Your task to perform on an android device: Empty the shopping cart on ebay.com. Add "macbook pro 13 inch" to the cart on ebay.com Image 0: 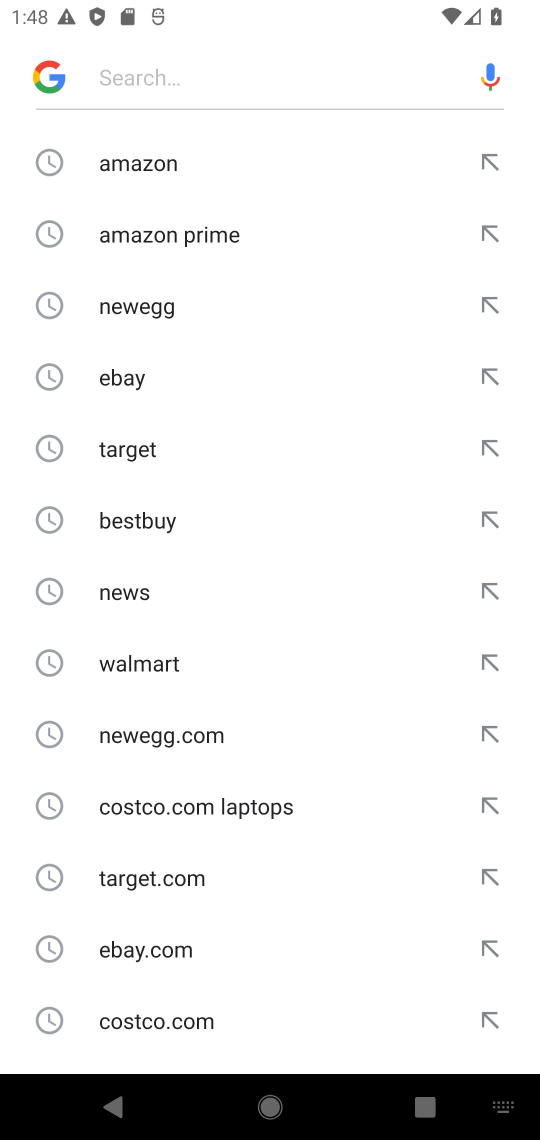
Step 0: press home button
Your task to perform on an android device: Empty the shopping cart on ebay.com. Add "macbook pro 13 inch" to the cart on ebay.com Image 1: 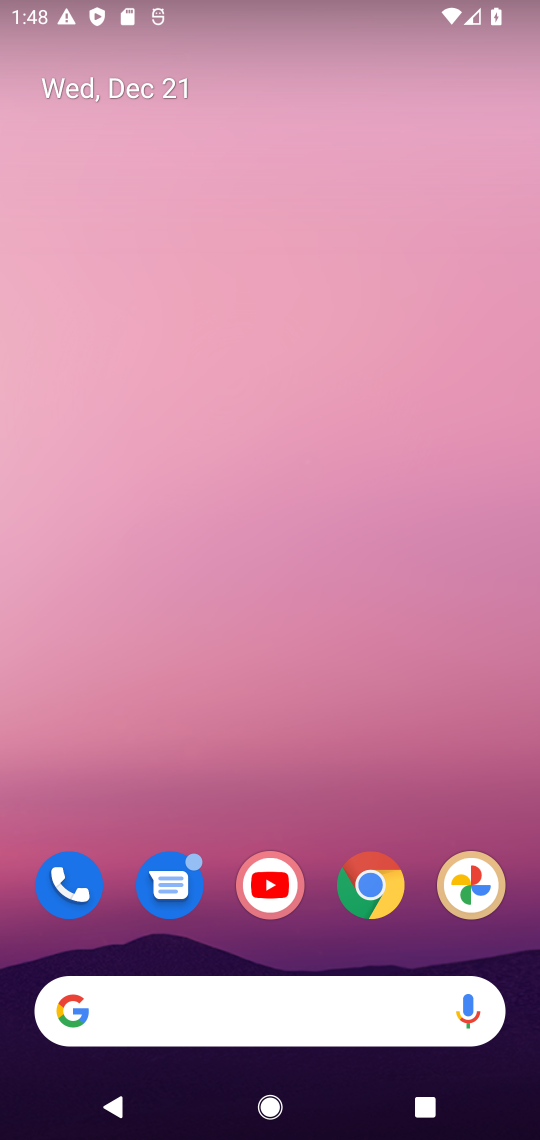
Step 1: drag from (244, 985) to (281, 357)
Your task to perform on an android device: Empty the shopping cart on ebay.com. Add "macbook pro 13 inch" to the cart on ebay.com Image 2: 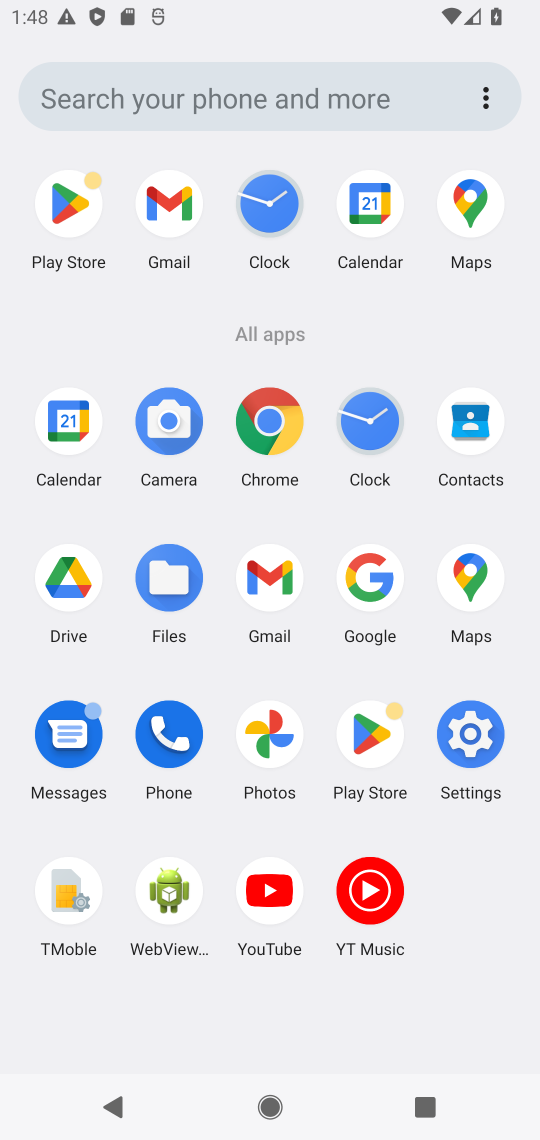
Step 2: click (371, 582)
Your task to perform on an android device: Empty the shopping cart on ebay.com. Add "macbook pro 13 inch" to the cart on ebay.com Image 3: 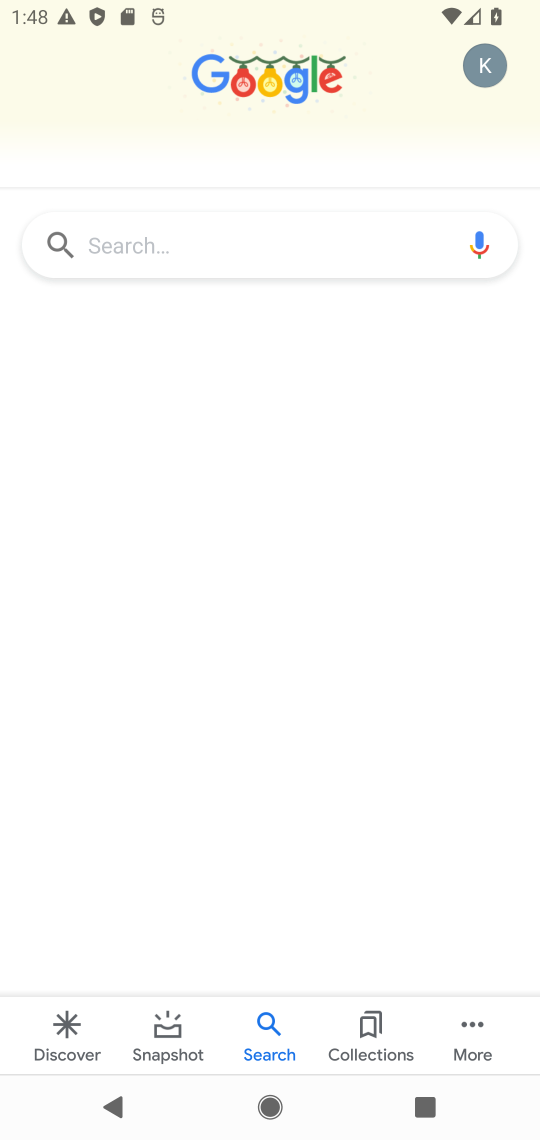
Step 3: click (139, 249)
Your task to perform on an android device: Empty the shopping cart on ebay.com. Add "macbook pro 13 inch" to the cart on ebay.com Image 4: 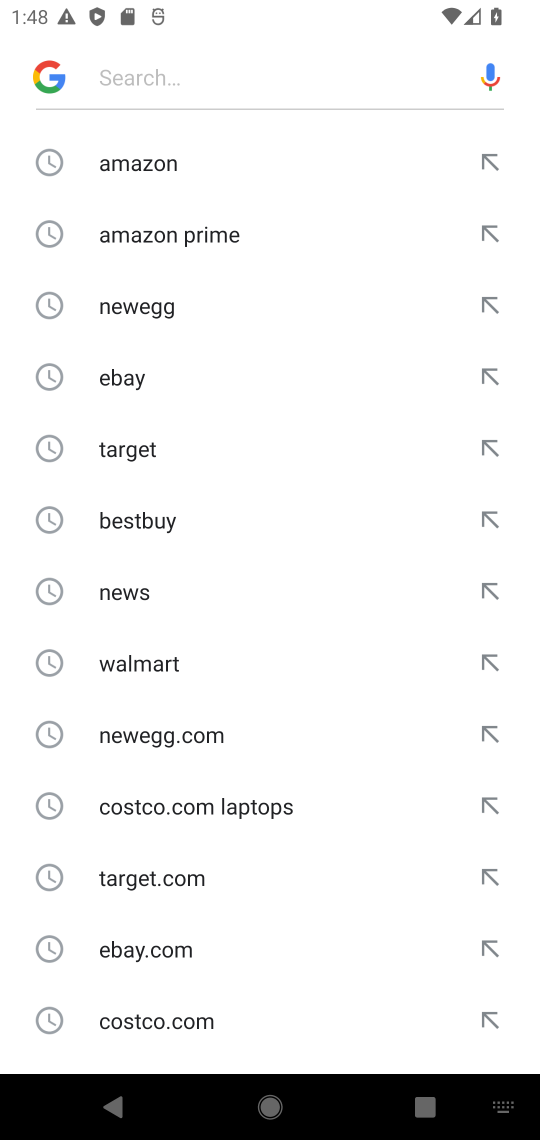
Step 4: click (119, 374)
Your task to perform on an android device: Empty the shopping cart on ebay.com. Add "macbook pro 13 inch" to the cart on ebay.com Image 5: 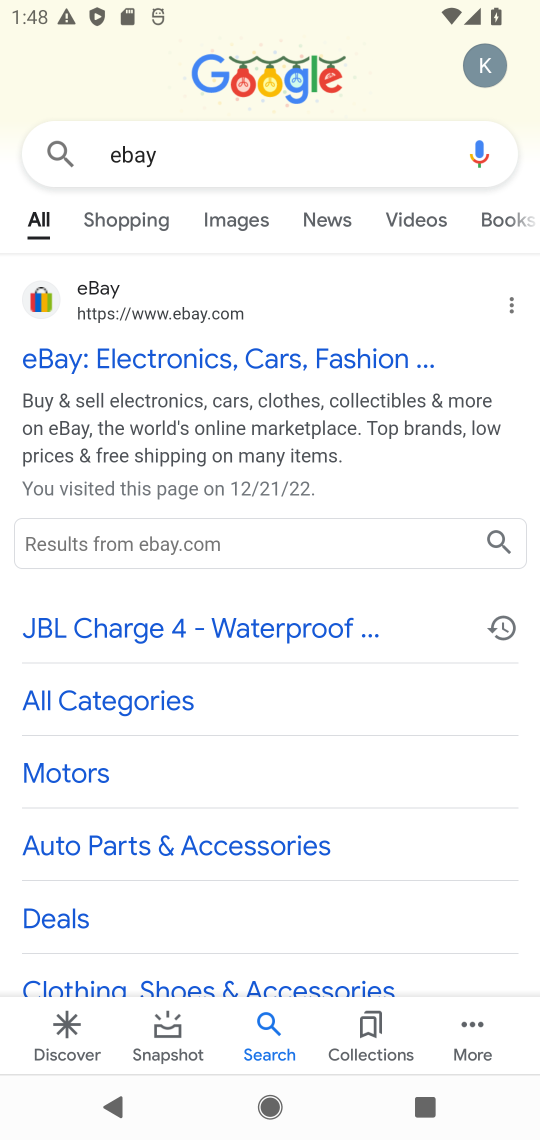
Step 5: click (125, 365)
Your task to perform on an android device: Empty the shopping cart on ebay.com. Add "macbook pro 13 inch" to the cart on ebay.com Image 6: 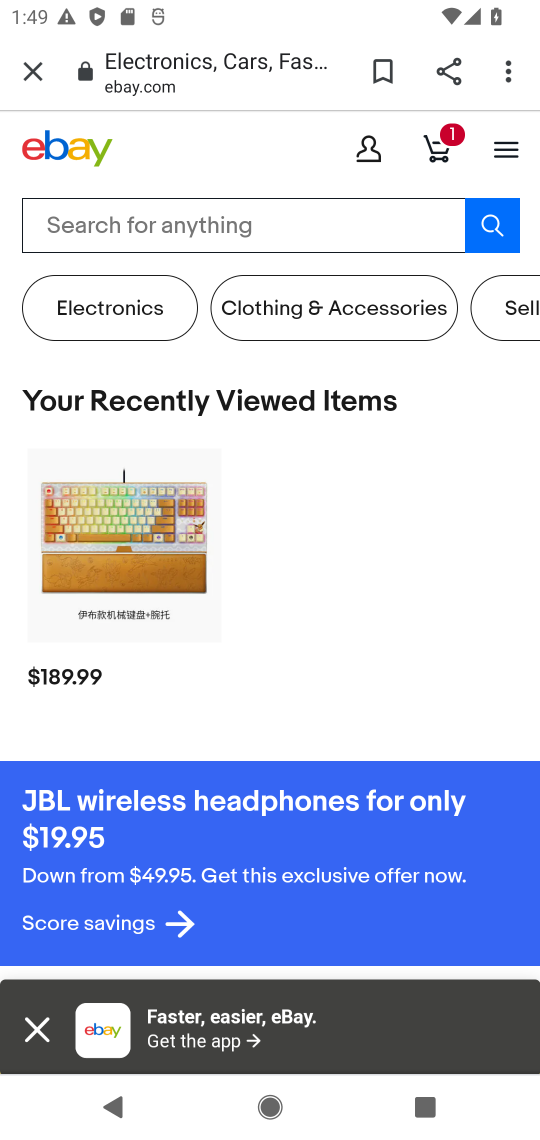
Step 6: click (176, 218)
Your task to perform on an android device: Empty the shopping cart on ebay.com. Add "macbook pro 13 inch" to the cart on ebay.com Image 7: 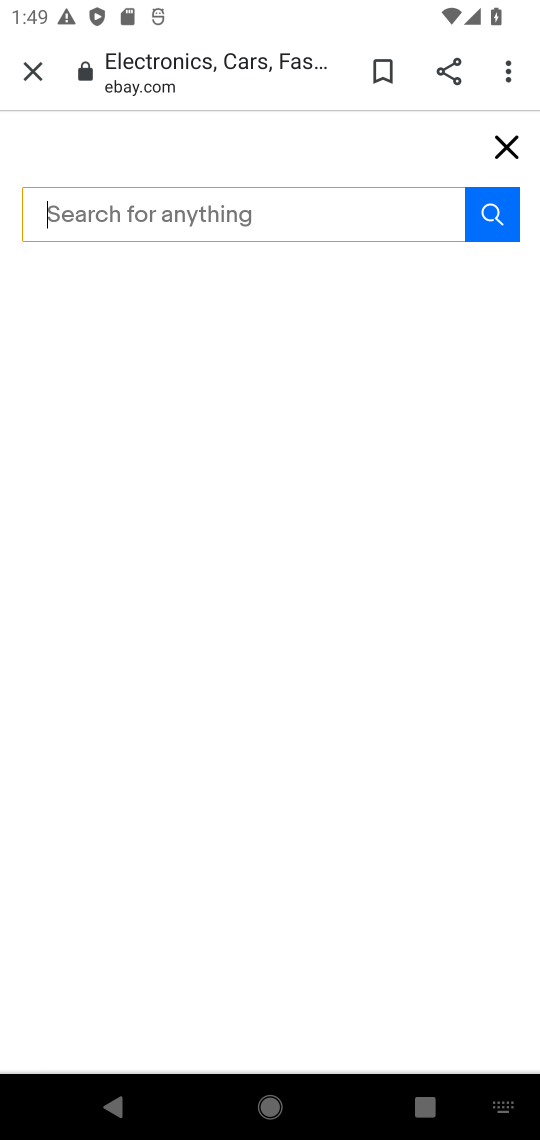
Step 7: type "macbook pro 13 inch"
Your task to perform on an android device: Empty the shopping cart on ebay.com. Add "macbook pro 13 inch" to the cart on ebay.com Image 8: 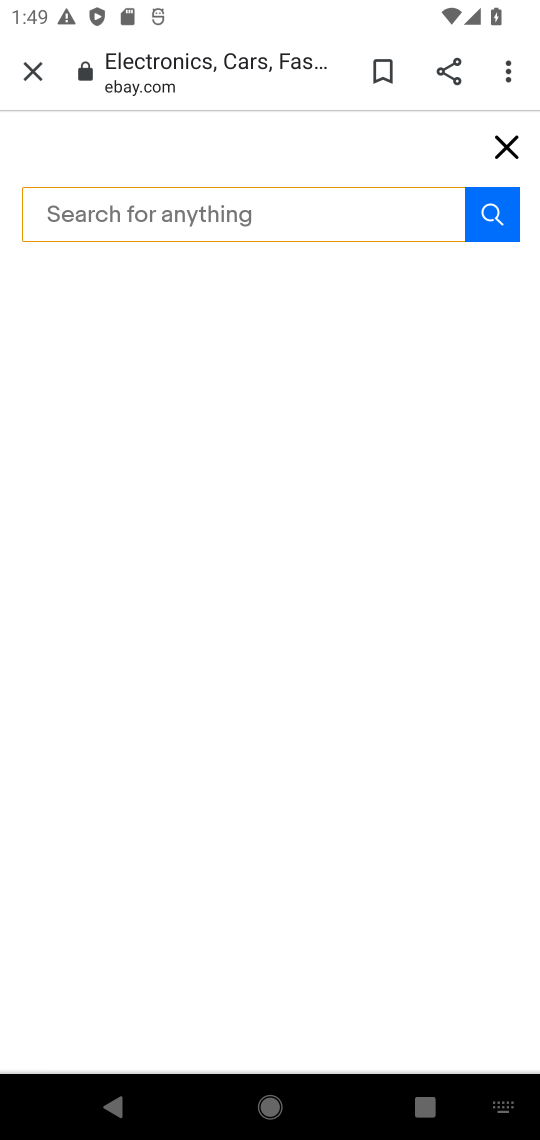
Step 8: click (481, 222)
Your task to perform on an android device: Empty the shopping cart on ebay.com. Add "macbook pro 13 inch" to the cart on ebay.com Image 9: 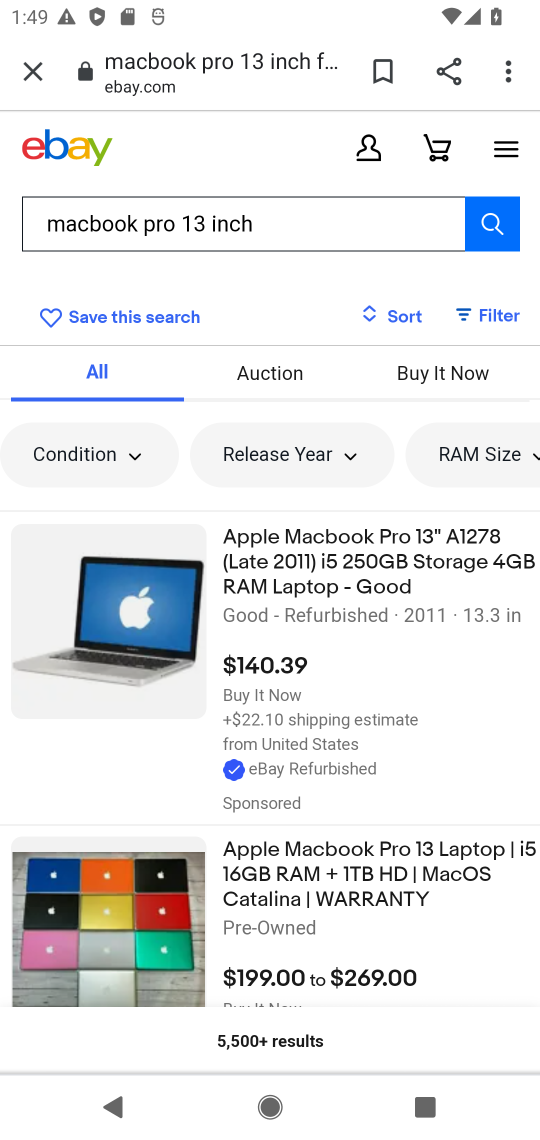
Step 9: click (328, 563)
Your task to perform on an android device: Empty the shopping cart on ebay.com. Add "macbook pro 13 inch" to the cart on ebay.com Image 10: 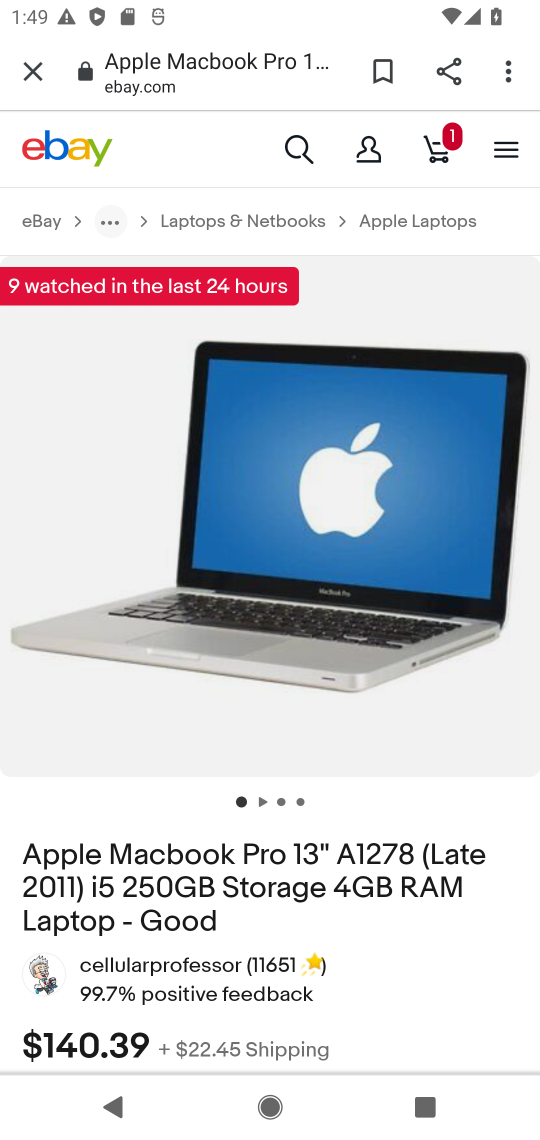
Step 10: drag from (349, 961) to (324, 558)
Your task to perform on an android device: Empty the shopping cart on ebay.com. Add "macbook pro 13 inch" to the cart on ebay.com Image 11: 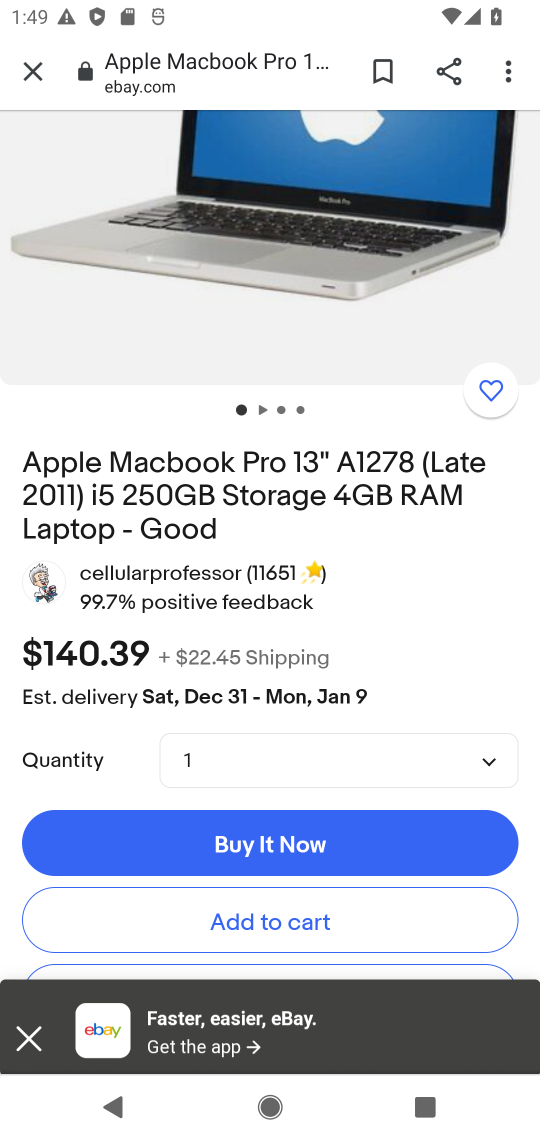
Step 11: click (286, 919)
Your task to perform on an android device: Empty the shopping cart on ebay.com. Add "macbook pro 13 inch" to the cart on ebay.com Image 12: 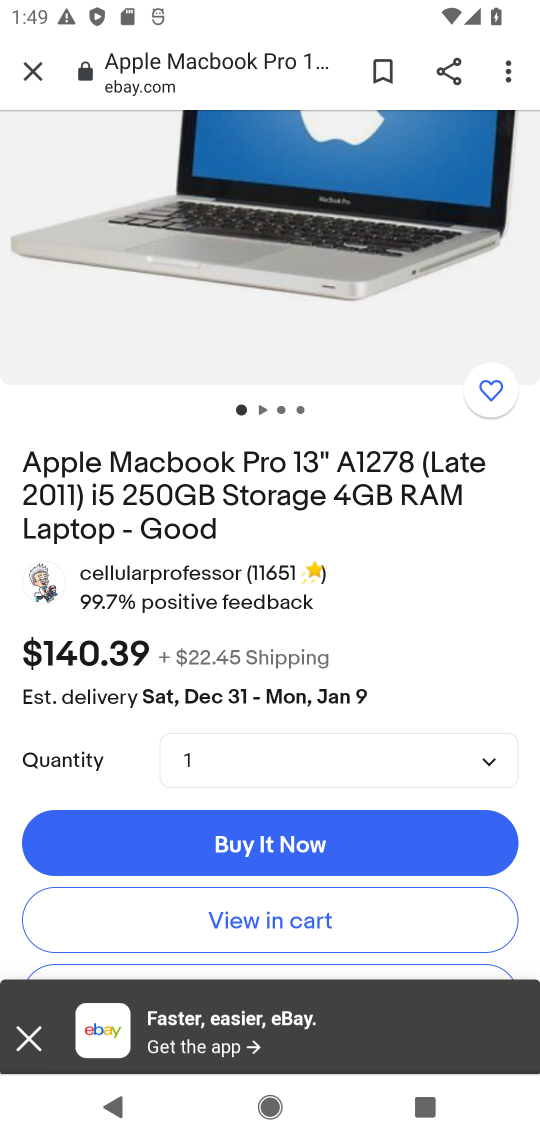
Step 12: task complete